Your task to perform on an android device: What's a good restaurant near me? Image 0: 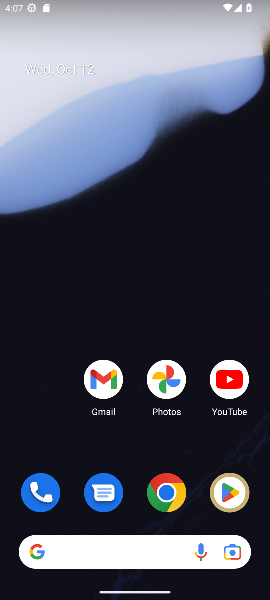
Step 0: click (177, 497)
Your task to perform on an android device: What's a good restaurant near me? Image 1: 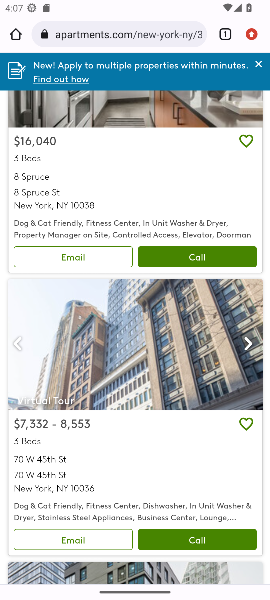
Step 1: click (95, 37)
Your task to perform on an android device: What's a good restaurant near me? Image 2: 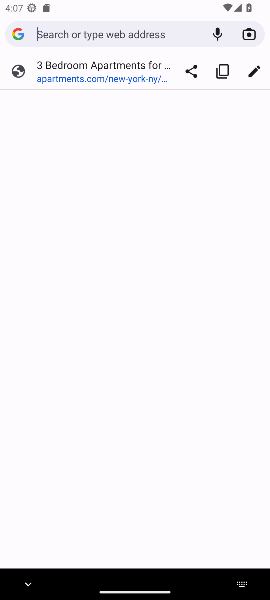
Step 2: type "a good restaurant near me"
Your task to perform on an android device: What's a good restaurant near me? Image 3: 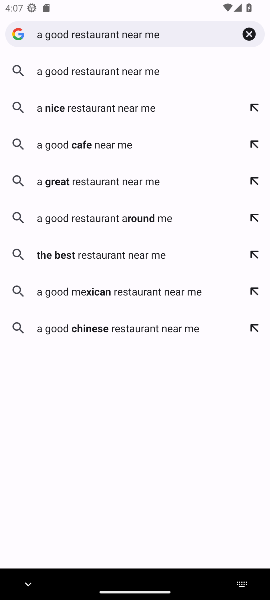
Step 3: click (75, 71)
Your task to perform on an android device: What's a good restaurant near me? Image 4: 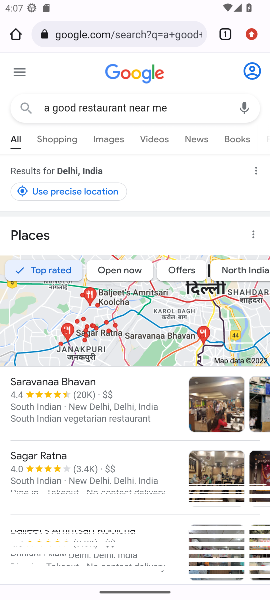
Step 4: task complete